Your task to perform on an android device: Show me productivity apps on the Play Store Image 0: 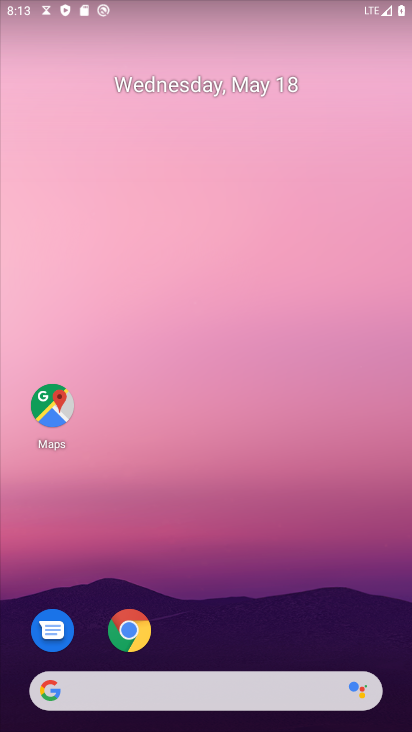
Step 0: drag from (281, 538) to (281, 131)
Your task to perform on an android device: Show me productivity apps on the Play Store Image 1: 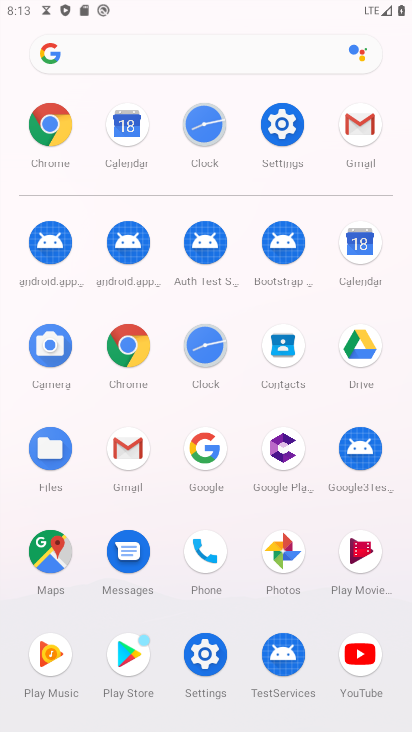
Step 1: click (114, 658)
Your task to perform on an android device: Show me productivity apps on the Play Store Image 2: 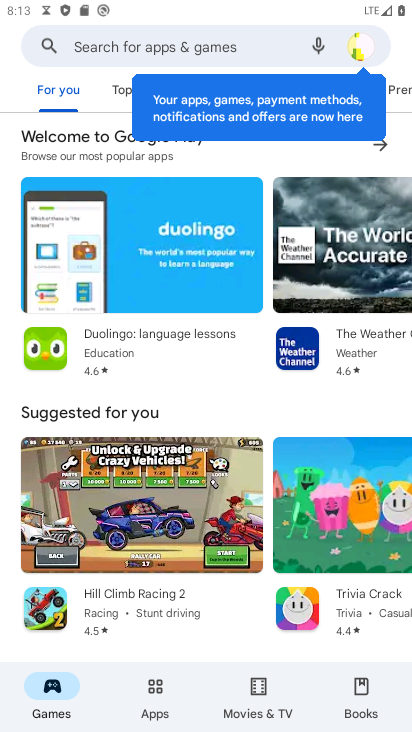
Step 2: click (162, 38)
Your task to perform on an android device: Show me productivity apps on the Play Store Image 3: 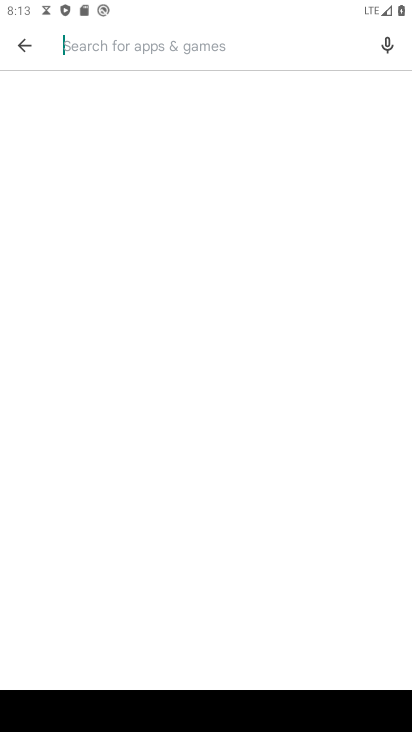
Step 3: click (110, 49)
Your task to perform on an android device: Show me productivity apps on the Play Store Image 4: 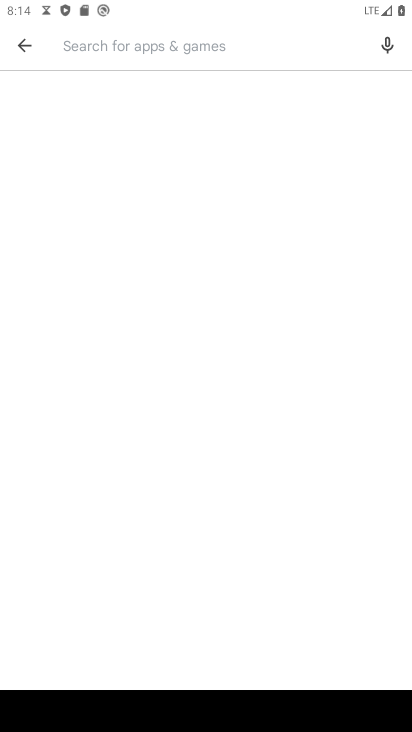
Step 4: click (110, 49)
Your task to perform on an android device: Show me productivity apps on the Play Store Image 5: 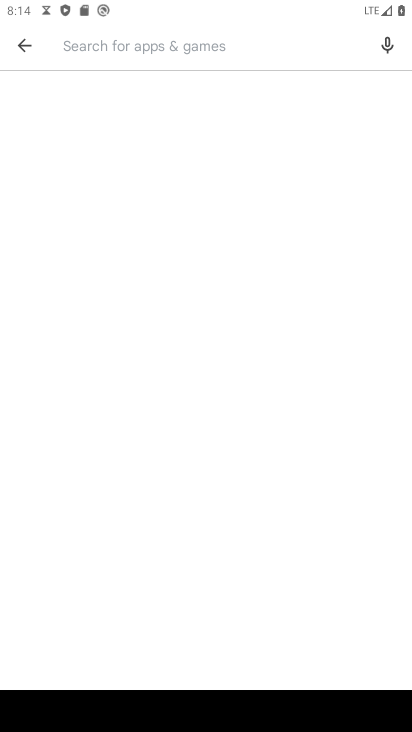
Step 5: click (111, 46)
Your task to perform on an android device: Show me productivity apps on the Play Store Image 6: 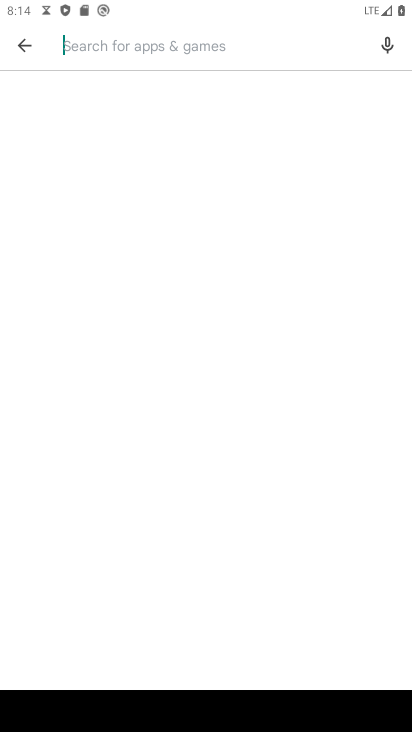
Step 6: click (82, 45)
Your task to perform on an android device: Show me productivity apps on the Play Store Image 7: 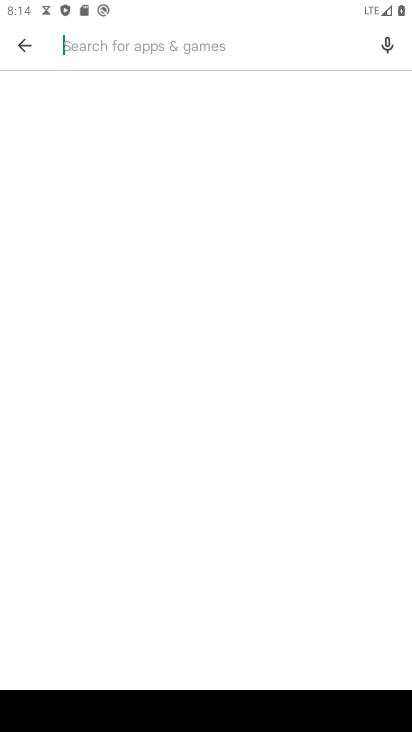
Step 7: click (83, 53)
Your task to perform on an android device: Show me productivity apps on the Play Store Image 8: 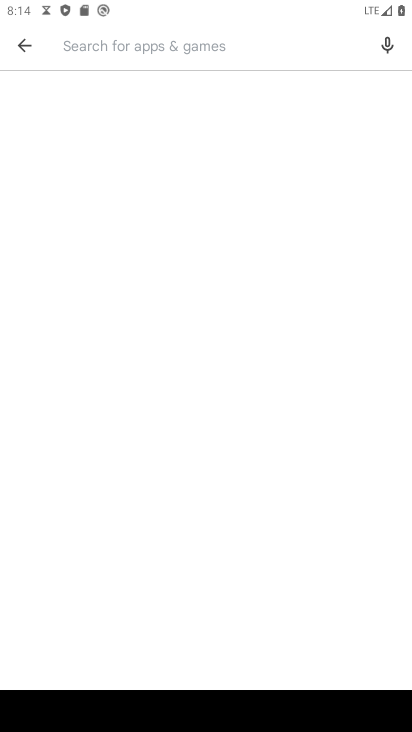
Step 8: click (84, 40)
Your task to perform on an android device: Show me productivity apps on the Play Store Image 9: 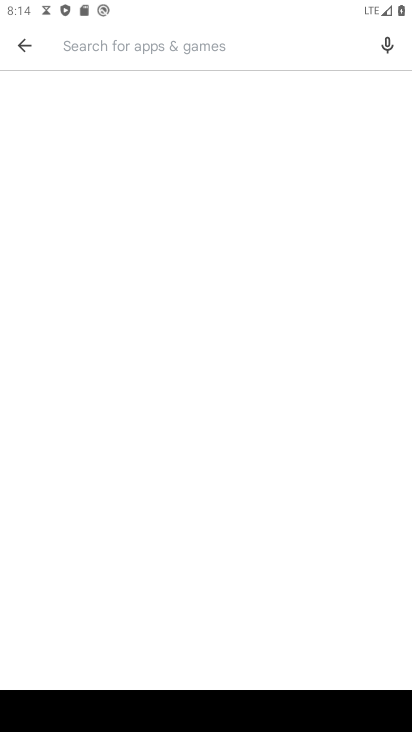
Step 9: click (92, 51)
Your task to perform on an android device: Show me productivity apps on the Play Store Image 10: 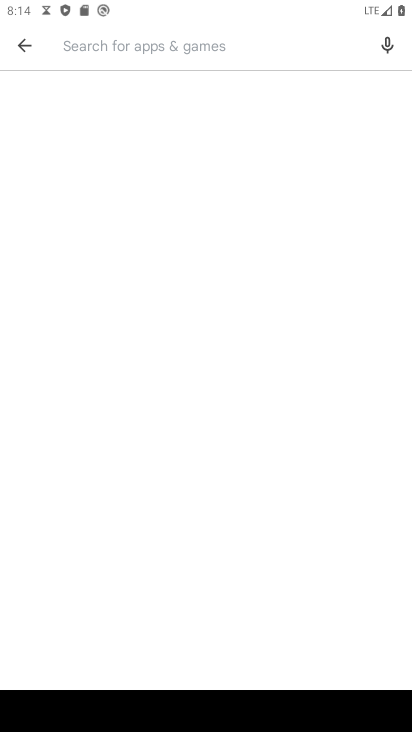
Step 10: type "productivity apps"
Your task to perform on an android device: Show me productivity apps on the Play Store Image 11: 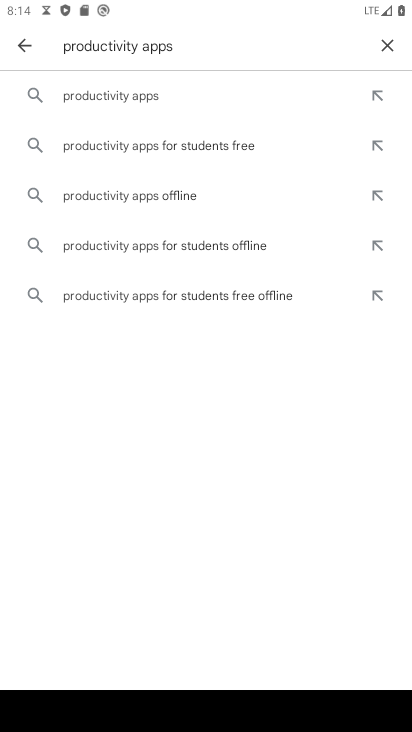
Step 11: click (122, 109)
Your task to perform on an android device: Show me productivity apps on the Play Store Image 12: 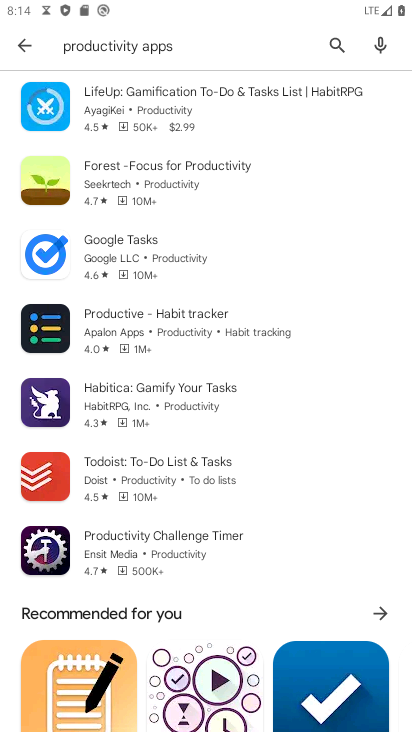
Step 12: task complete